Your task to perform on an android device: snooze an email in the gmail app Image 0: 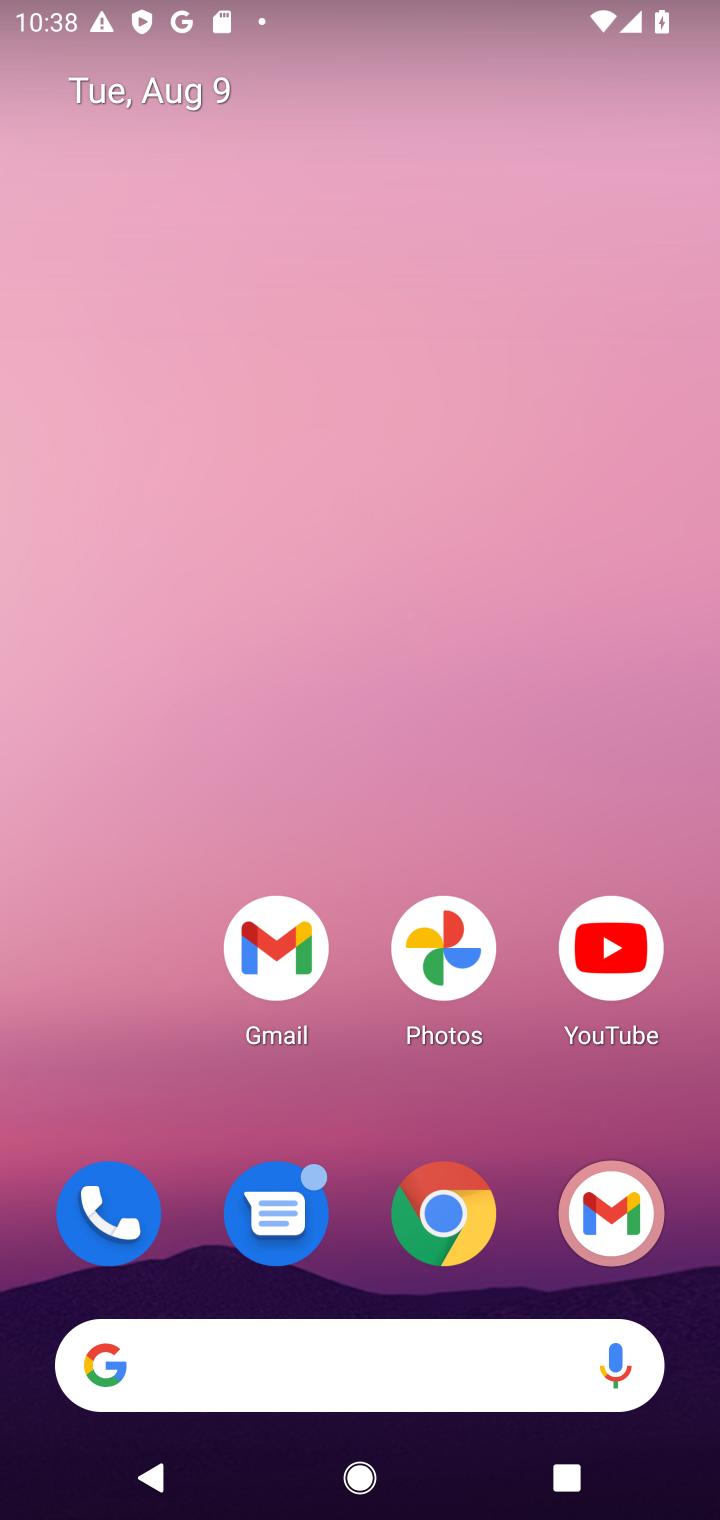
Step 0: drag from (382, 1293) to (393, 78)
Your task to perform on an android device: snooze an email in the gmail app Image 1: 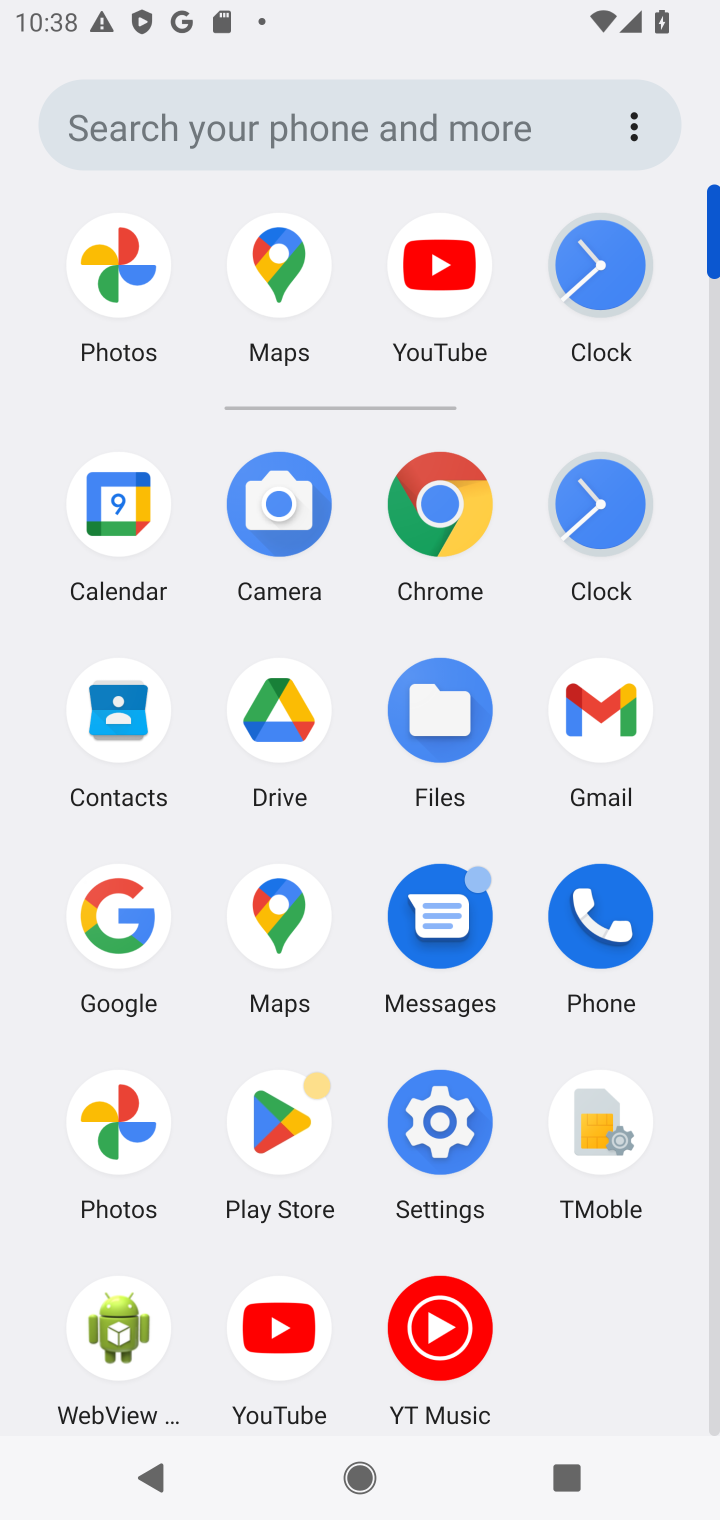
Step 1: click (620, 720)
Your task to perform on an android device: snooze an email in the gmail app Image 2: 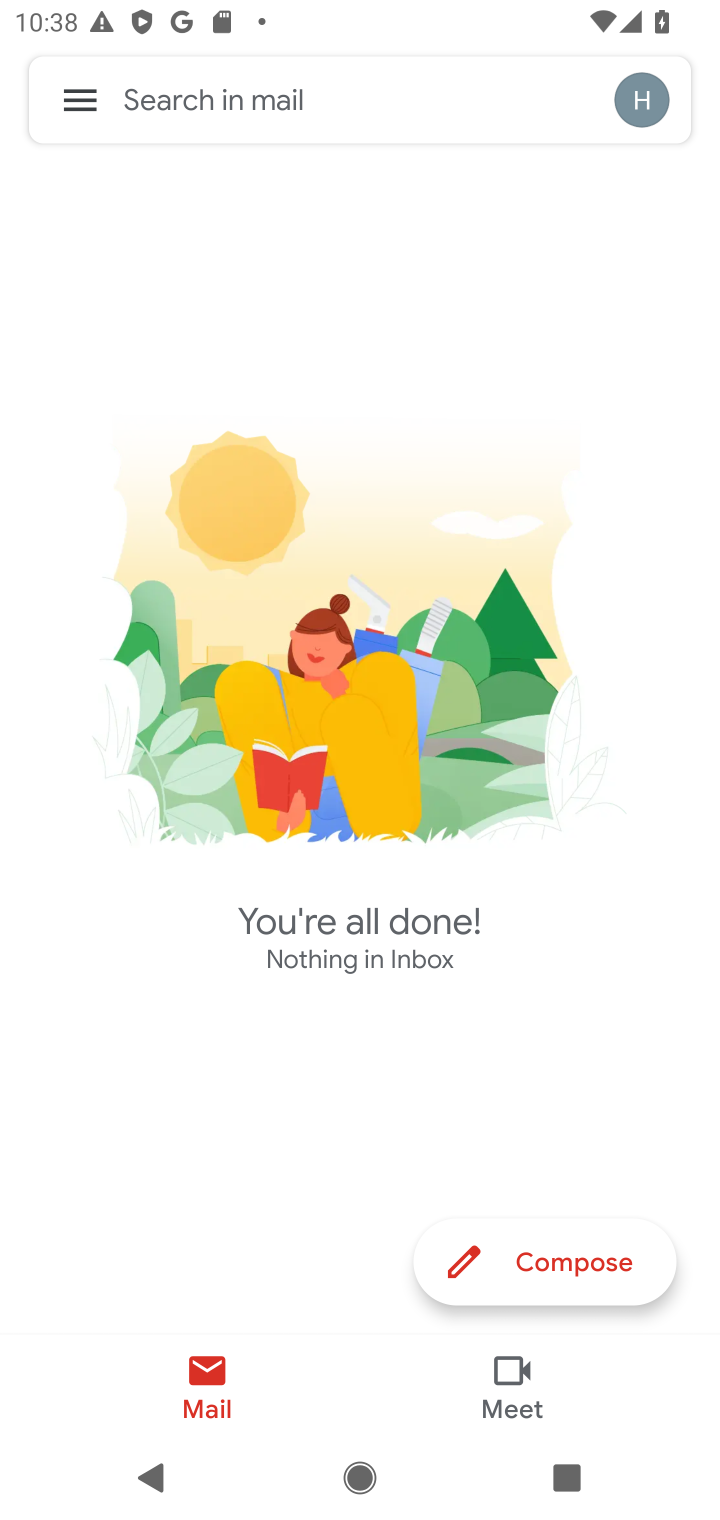
Step 2: click (73, 94)
Your task to perform on an android device: snooze an email in the gmail app Image 3: 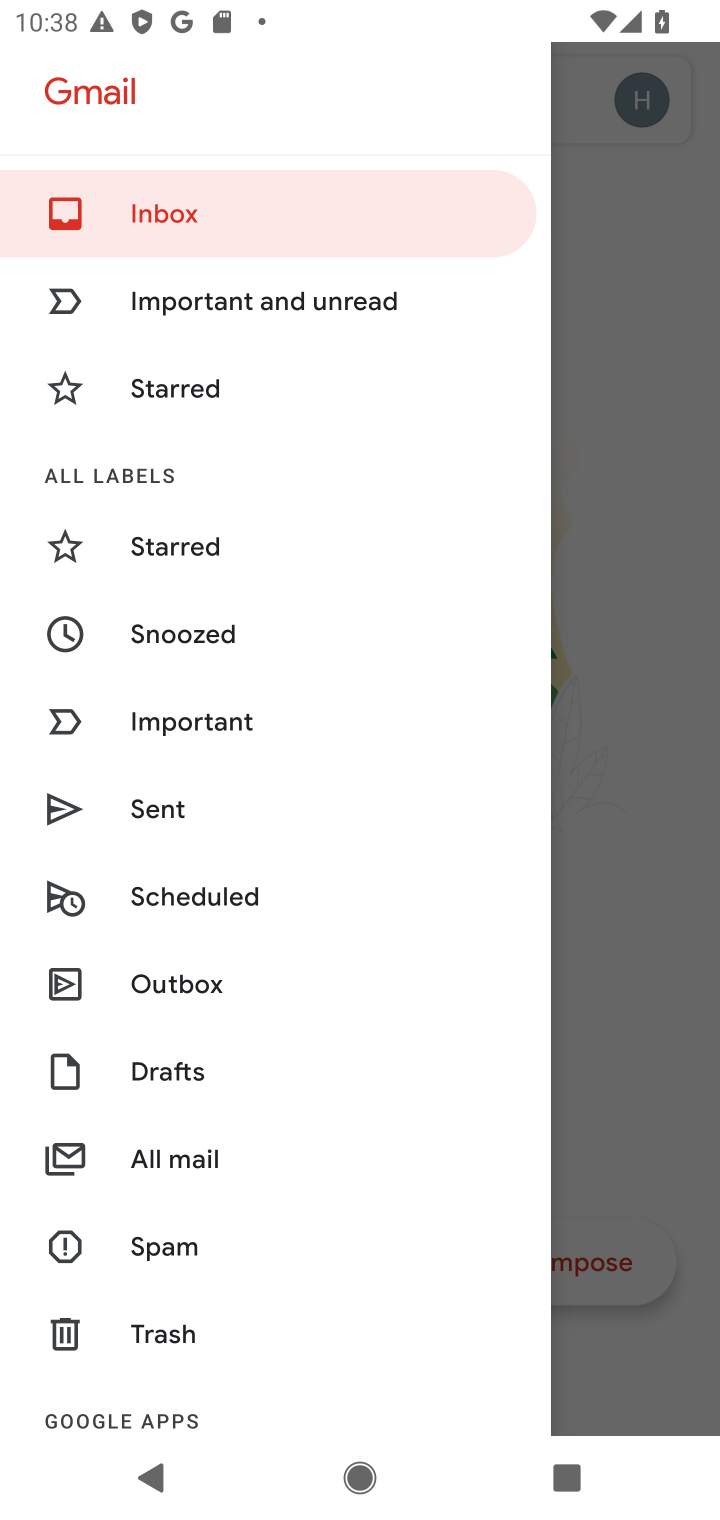
Step 3: click (186, 1151)
Your task to perform on an android device: snooze an email in the gmail app Image 4: 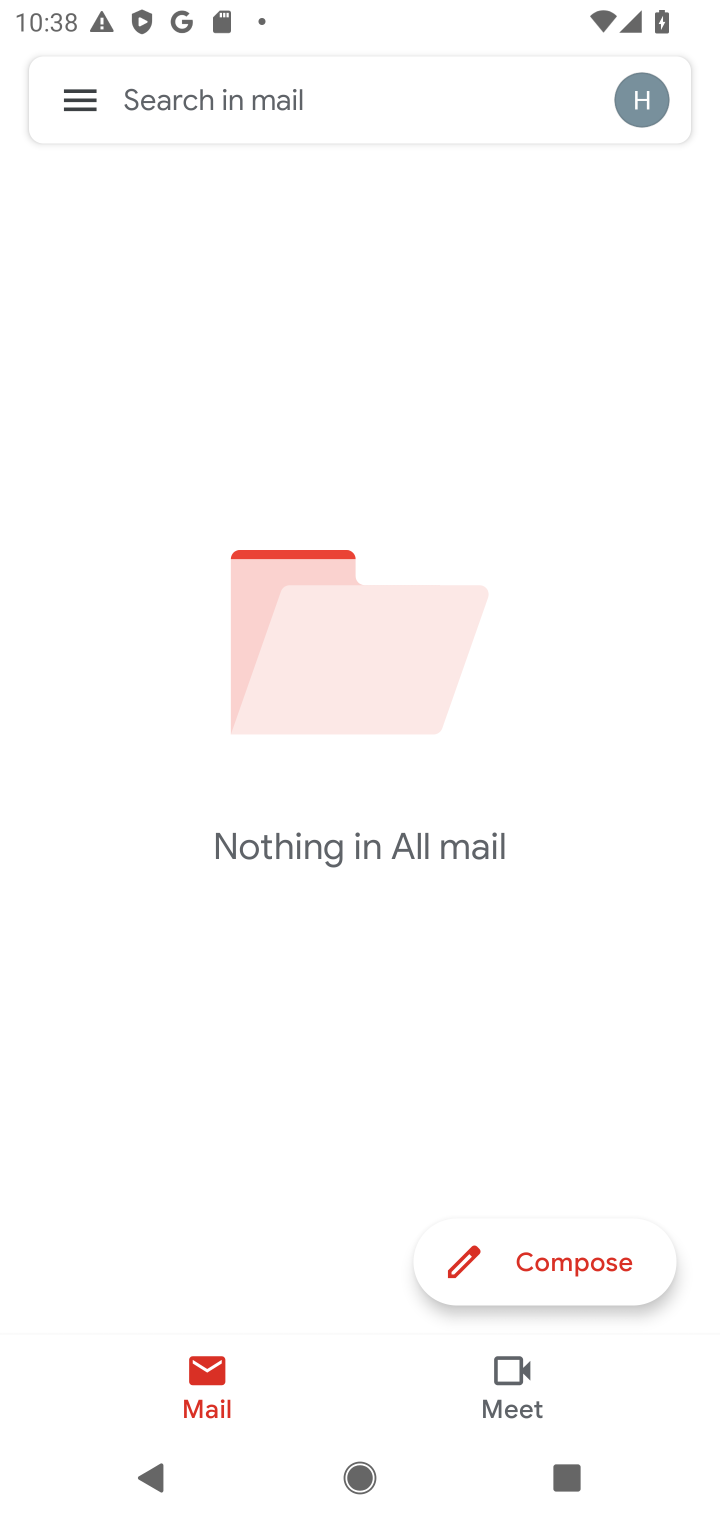
Step 4: task complete